Your task to perform on an android device: Go to display settings Image 0: 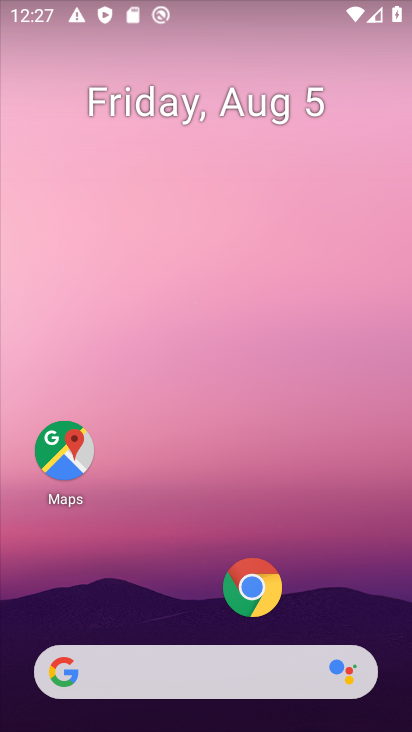
Step 0: drag from (217, 716) to (267, 122)
Your task to perform on an android device: Go to display settings Image 1: 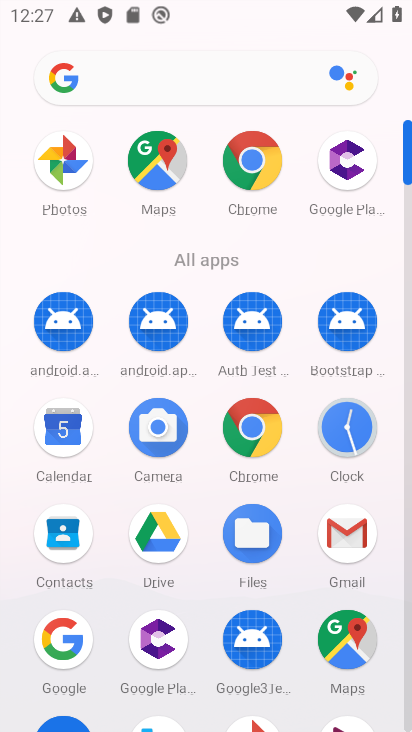
Step 1: drag from (158, 385) to (353, 15)
Your task to perform on an android device: Go to display settings Image 2: 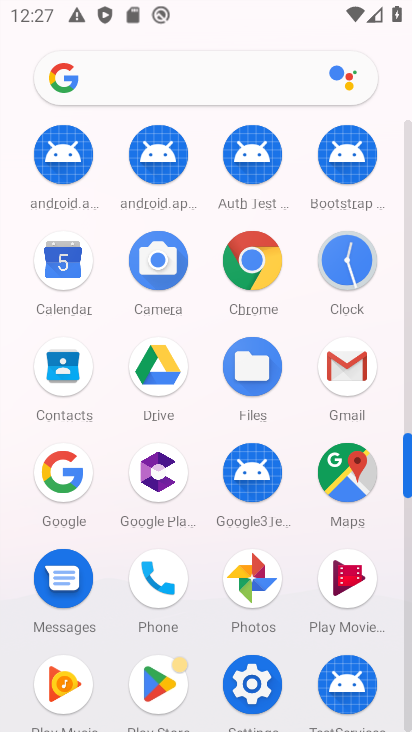
Step 2: click (228, 688)
Your task to perform on an android device: Go to display settings Image 3: 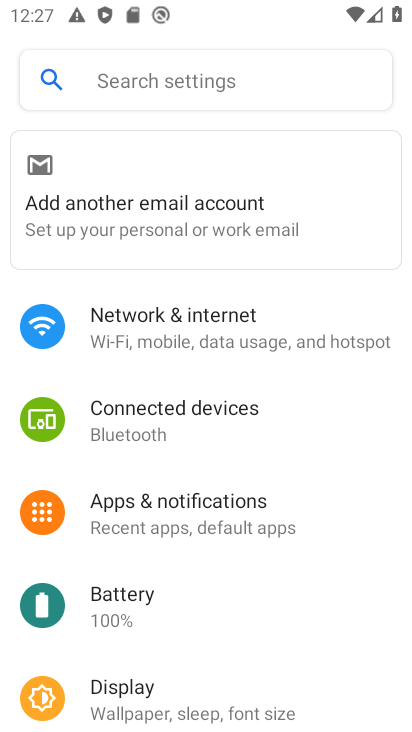
Step 3: click (161, 708)
Your task to perform on an android device: Go to display settings Image 4: 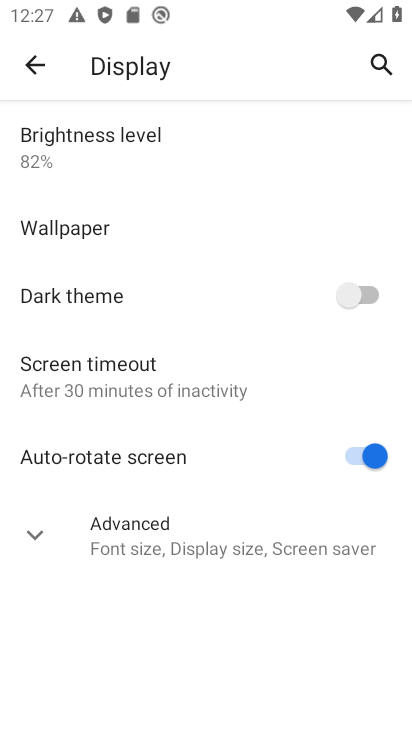
Step 4: task complete